Your task to perform on an android device: Search for lenovo thinkpad on amazon, select the first entry, add it to the cart, then select checkout. Image 0: 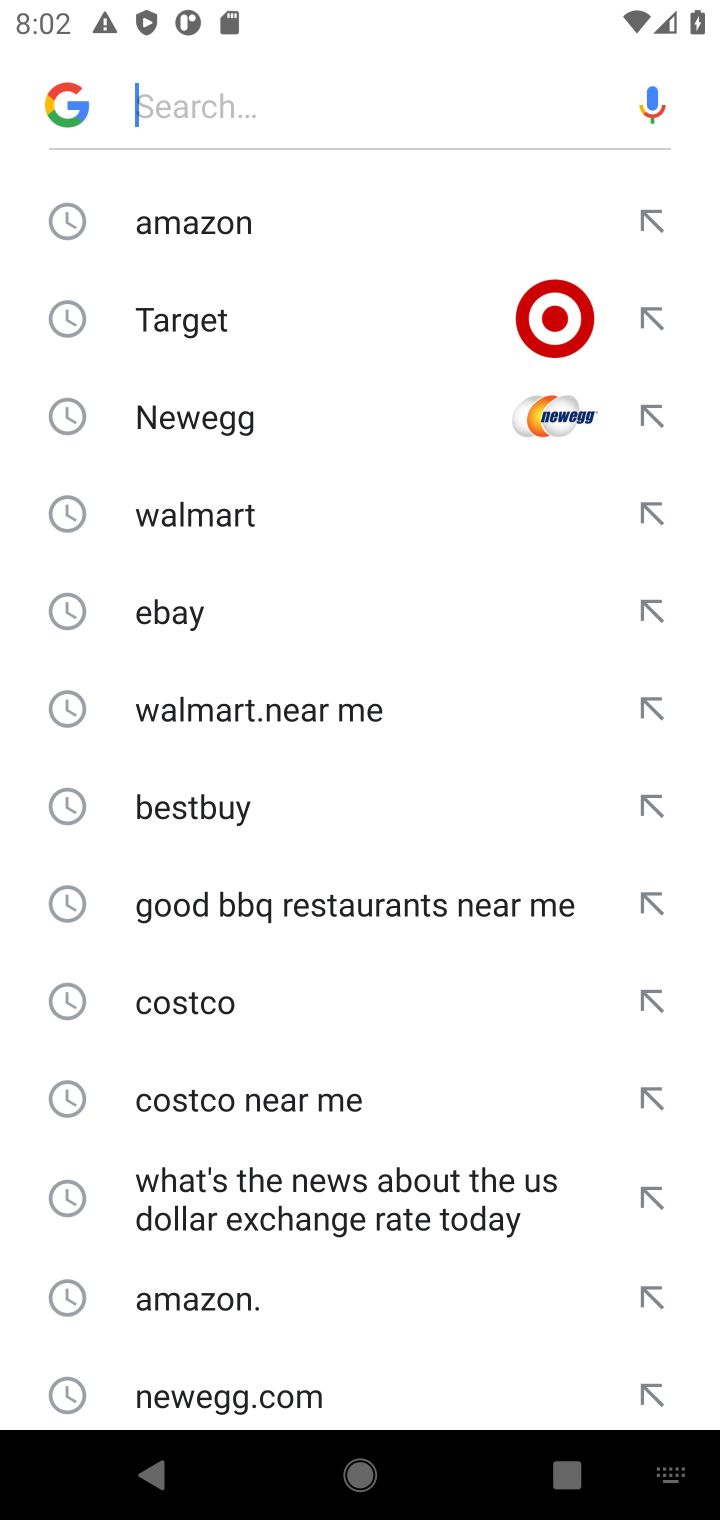
Step 0: type "amazon.com"
Your task to perform on an android device: Search for lenovo thinkpad on amazon, select the first entry, add it to the cart, then select checkout. Image 1: 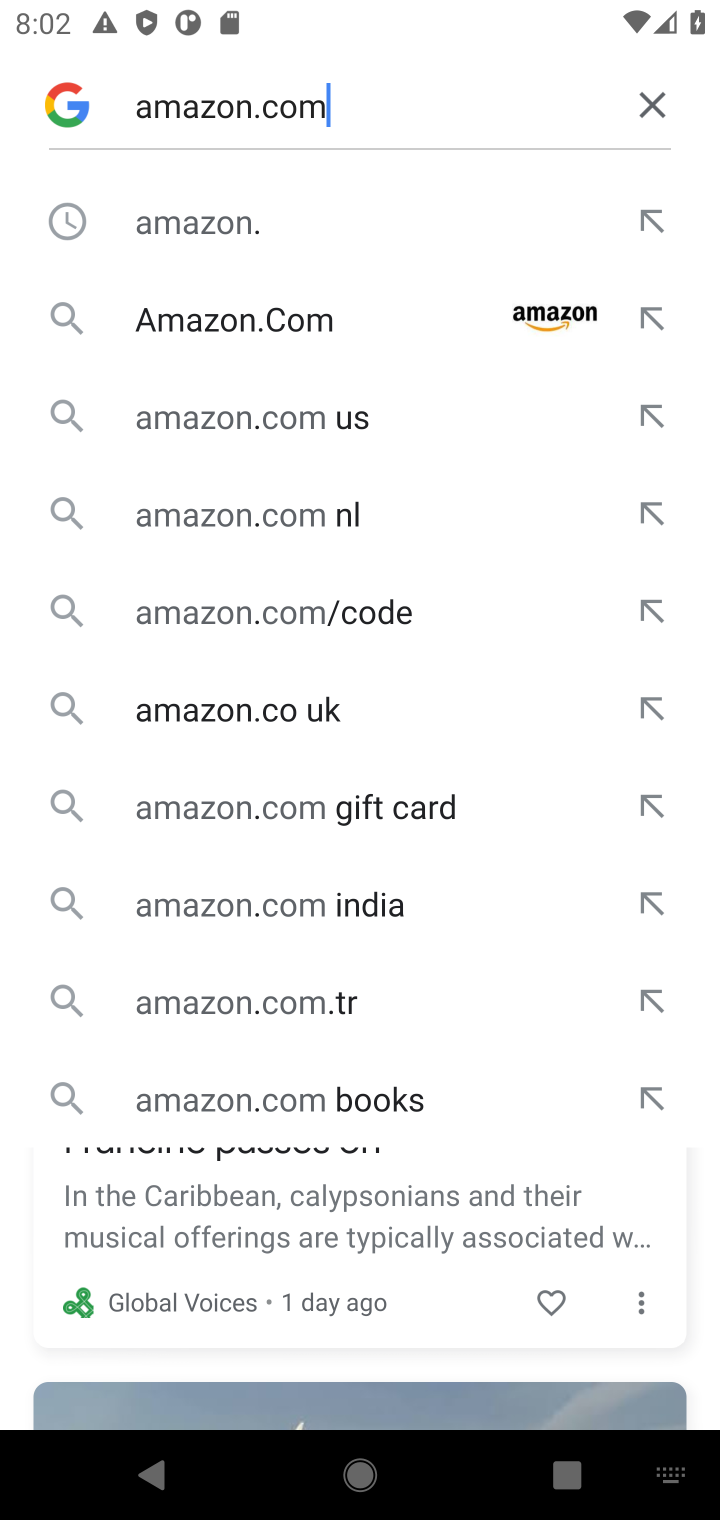
Step 1: click (242, 315)
Your task to perform on an android device: Search for lenovo thinkpad on amazon, select the first entry, add it to the cart, then select checkout. Image 2: 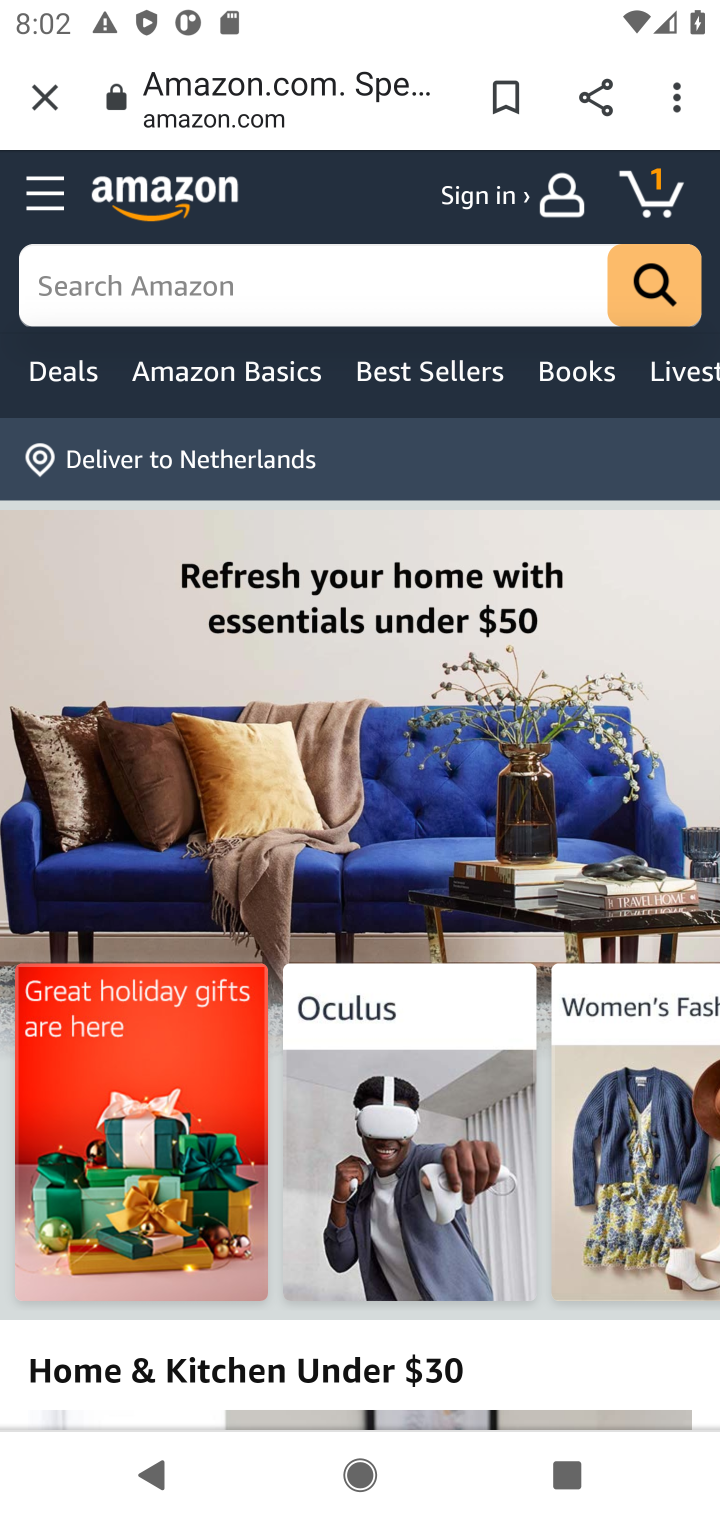
Step 2: click (109, 298)
Your task to perform on an android device: Search for lenovo thinkpad on amazon, select the first entry, add it to the cart, then select checkout. Image 3: 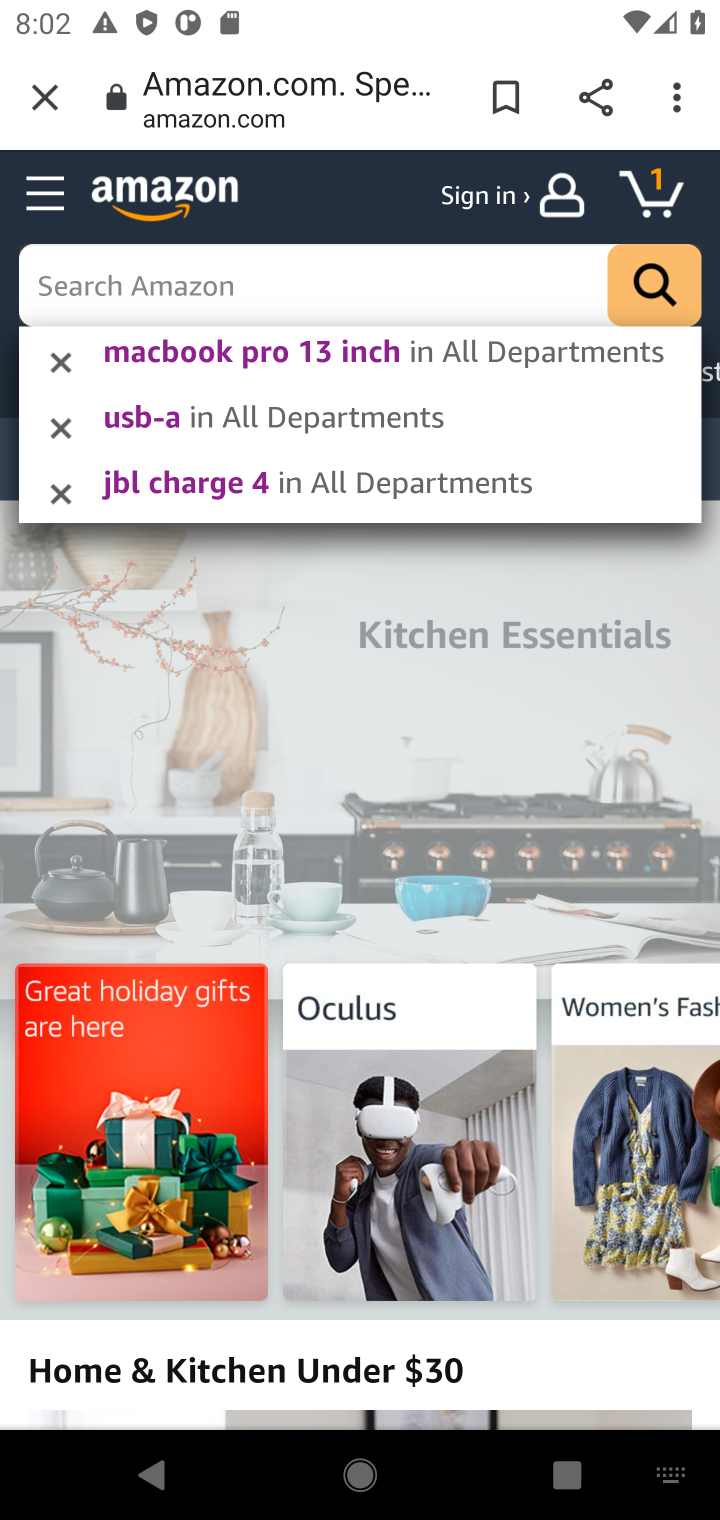
Step 3: type " lenovo thinkpad"
Your task to perform on an android device: Search for lenovo thinkpad on amazon, select the first entry, add it to the cart, then select checkout. Image 4: 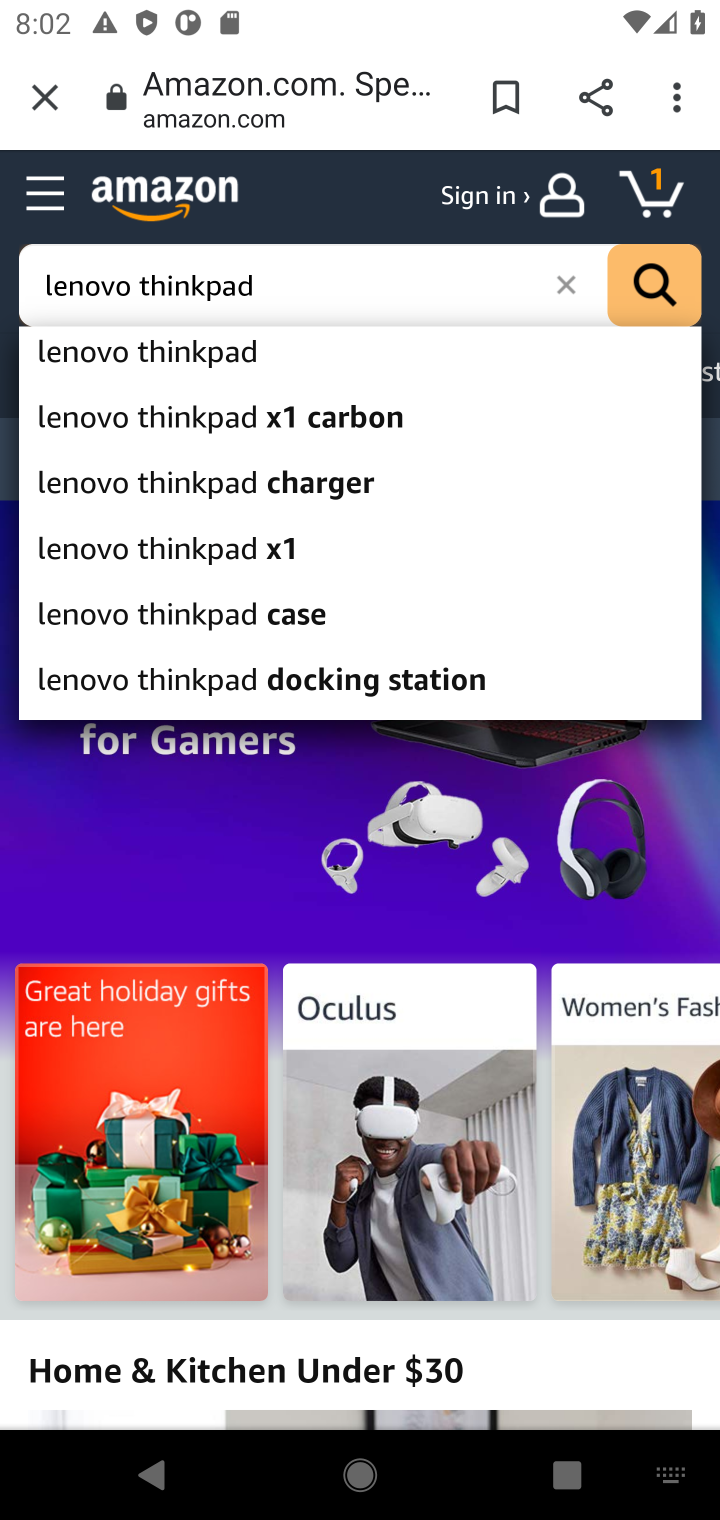
Step 4: click (228, 361)
Your task to perform on an android device: Search for lenovo thinkpad on amazon, select the first entry, add it to the cart, then select checkout. Image 5: 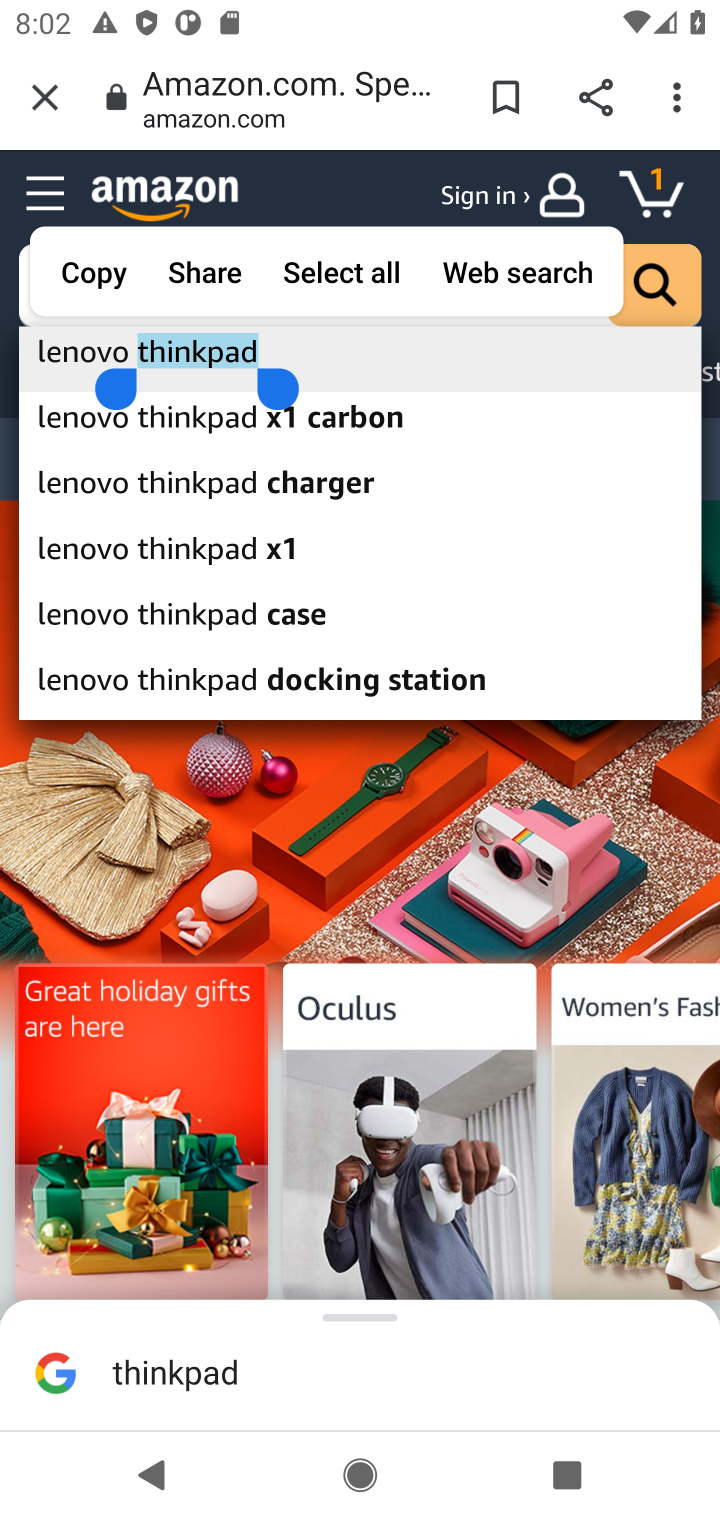
Step 5: click (57, 368)
Your task to perform on an android device: Search for lenovo thinkpad on amazon, select the first entry, add it to the cart, then select checkout. Image 6: 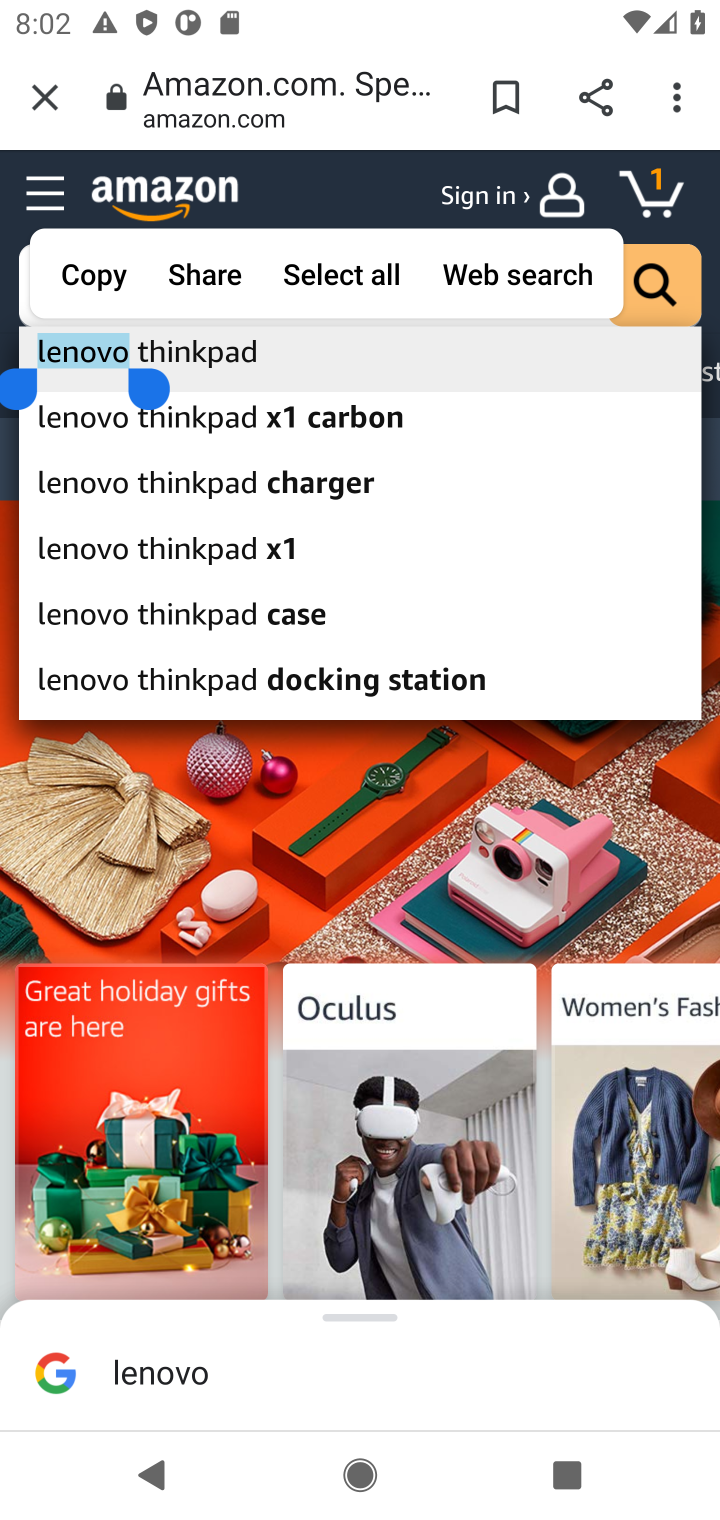
Step 6: click (144, 362)
Your task to perform on an android device: Search for lenovo thinkpad on amazon, select the first entry, add it to the cart, then select checkout. Image 7: 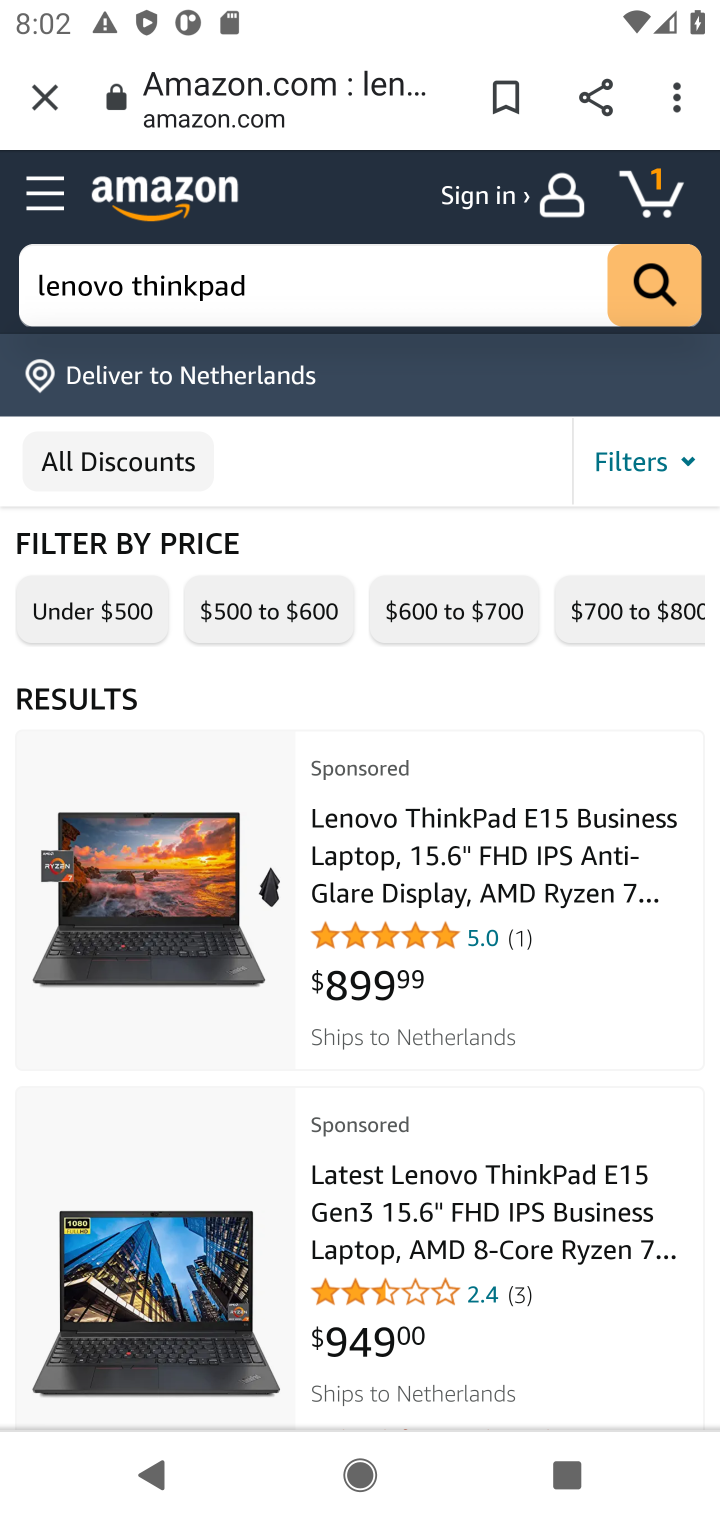
Step 7: click (386, 876)
Your task to perform on an android device: Search for lenovo thinkpad on amazon, select the first entry, add it to the cart, then select checkout. Image 8: 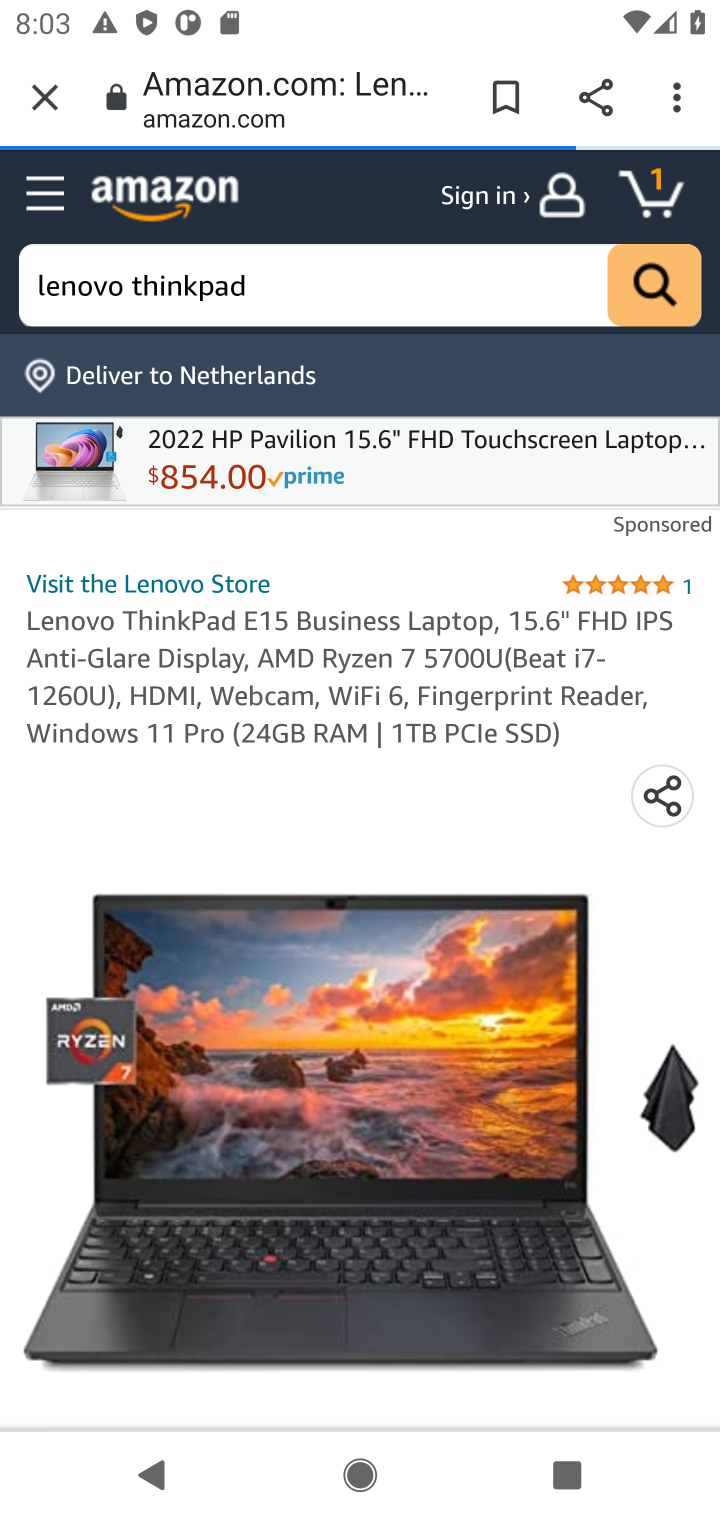
Step 8: drag from (351, 851) to (325, 326)
Your task to perform on an android device: Search for lenovo thinkpad on amazon, select the first entry, add it to the cart, then select checkout. Image 9: 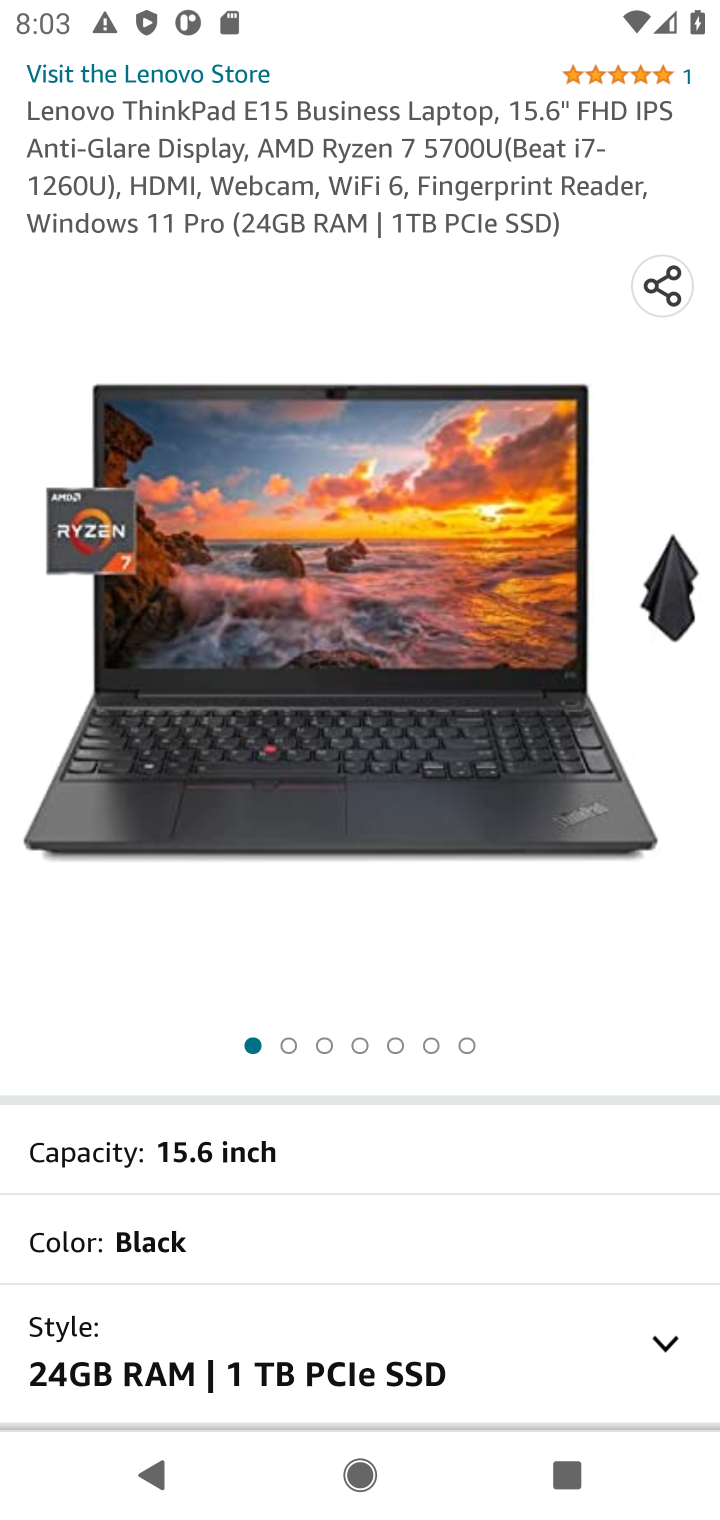
Step 9: drag from (376, 971) to (321, 245)
Your task to perform on an android device: Search for lenovo thinkpad on amazon, select the first entry, add it to the cart, then select checkout. Image 10: 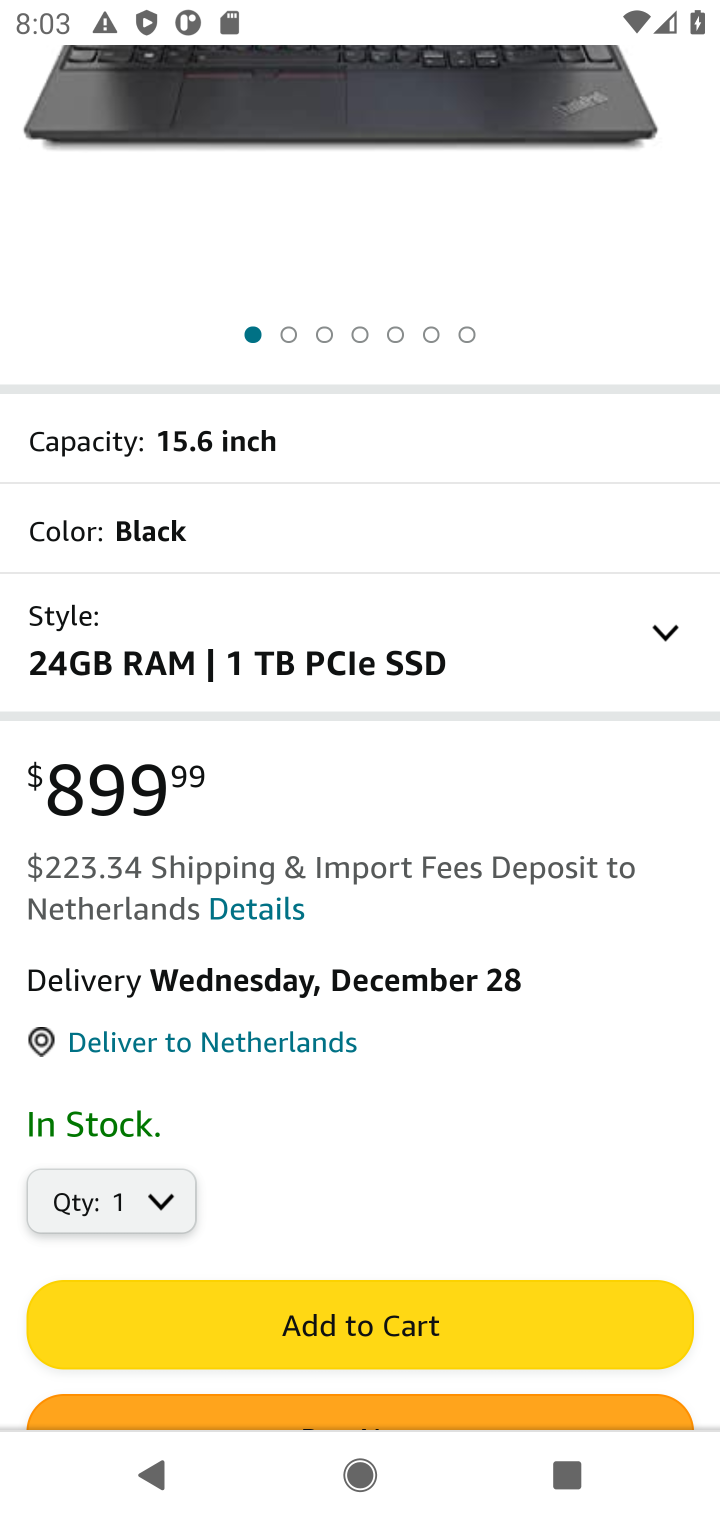
Step 10: click (378, 1328)
Your task to perform on an android device: Search for lenovo thinkpad on amazon, select the first entry, add it to the cart, then select checkout. Image 11: 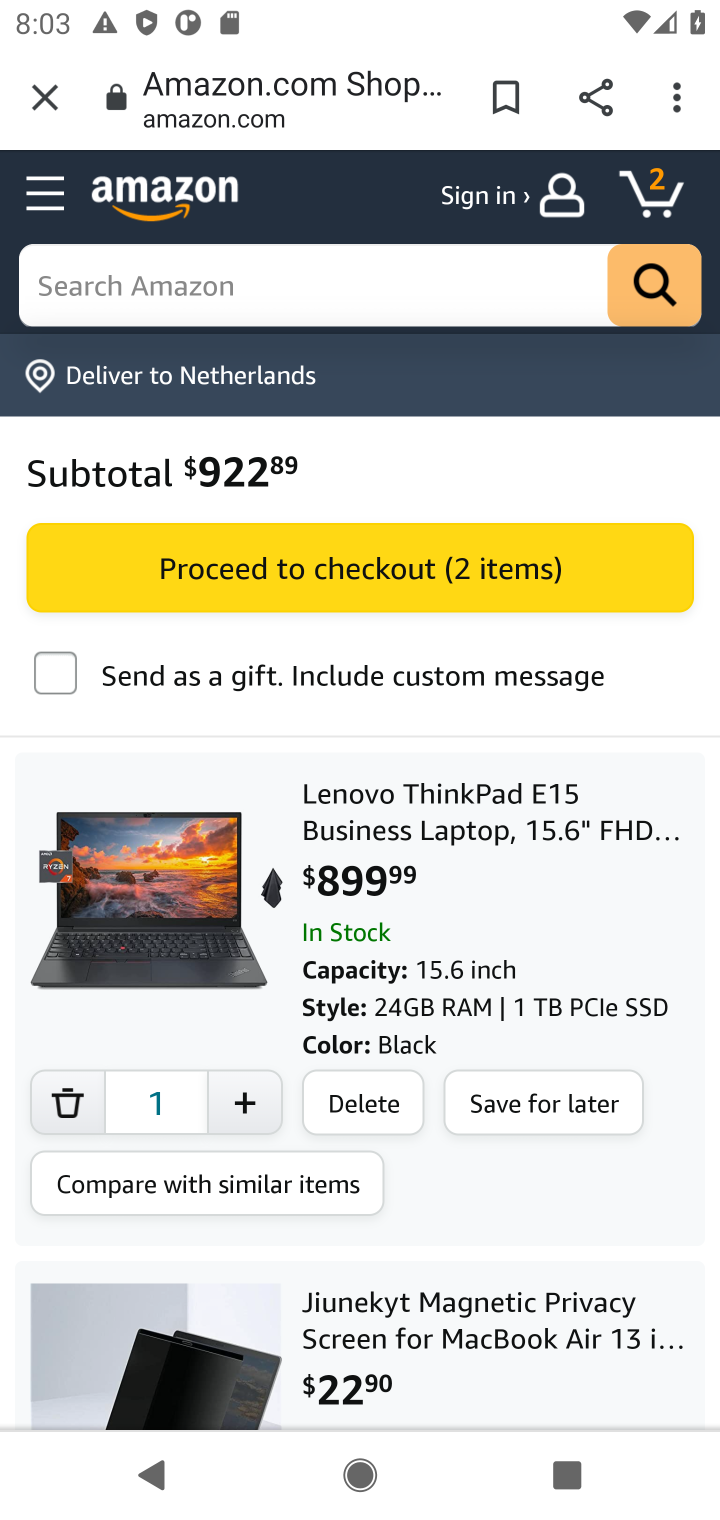
Step 11: click (318, 570)
Your task to perform on an android device: Search for lenovo thinkpad on amazon, select the first entry, add it to the cart, then select checkout. Image 12: 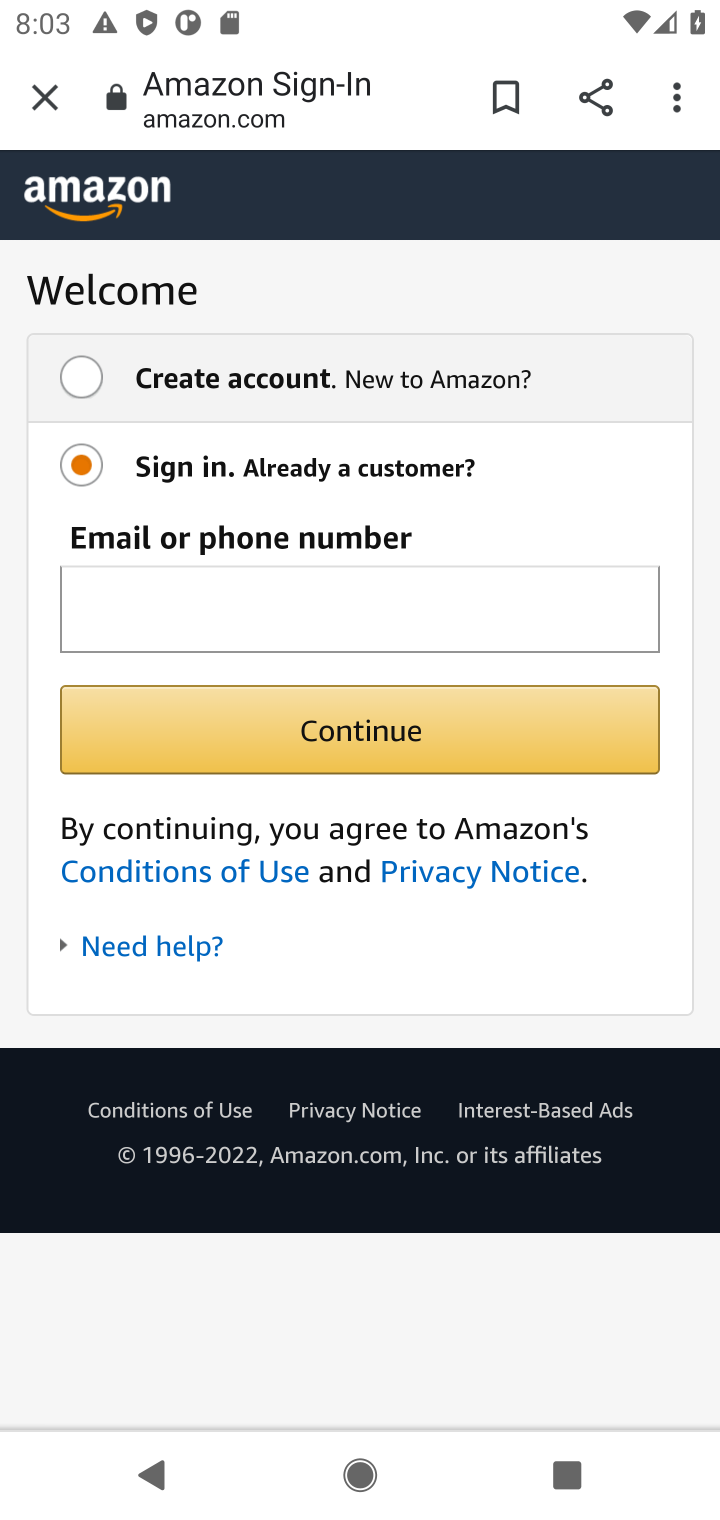
Step 12: task complete